Your task to perform on an android device: What is the news today? Image 0: 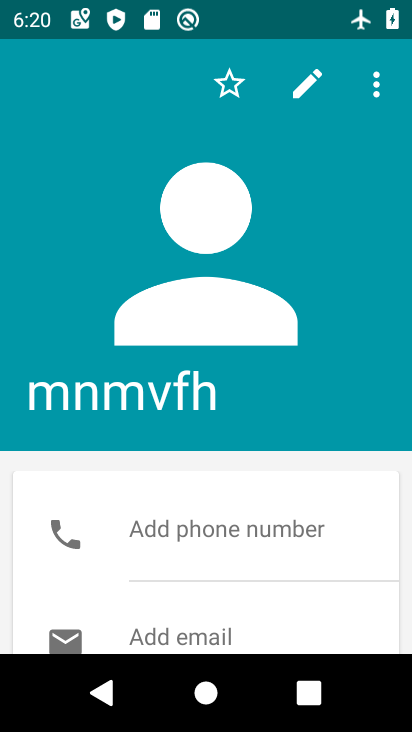
Step 0: drag from (287, 604) to (294, 351)
Your task to perform on an android device: What is the news today? Image 1: 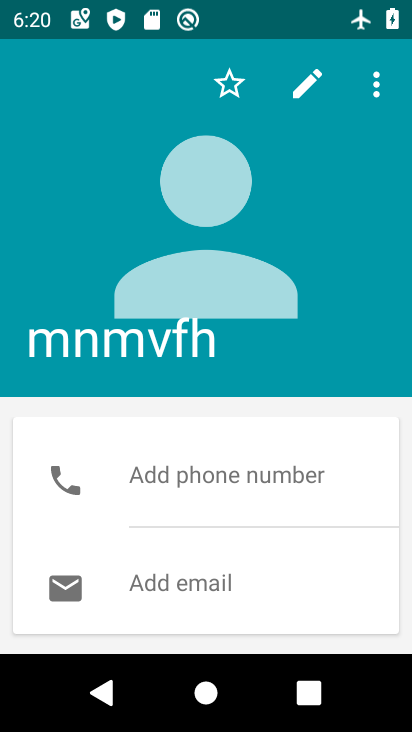
Step 1: press home button
Your task to perform on an android device: What is the news today? Image 2: 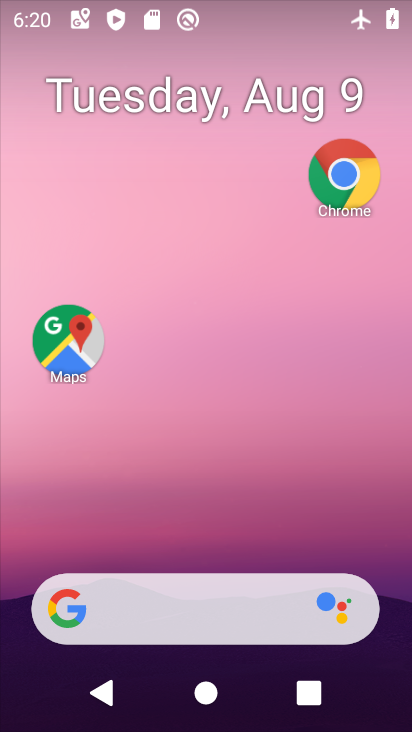
Step 2: drag from (182, 568) to (167, 116)
Your task to perform on an android device: What is the news today? Image 3: 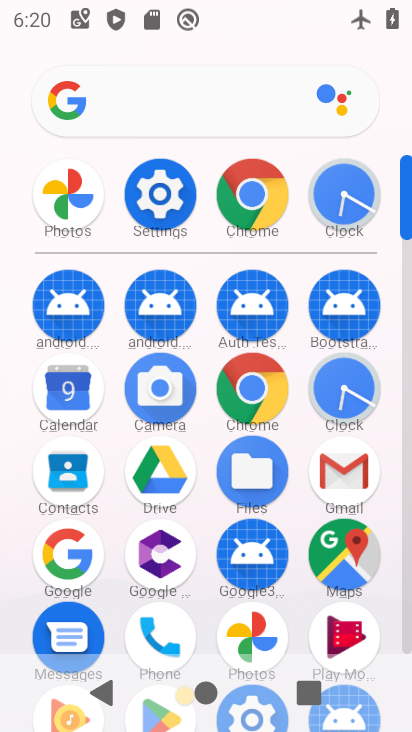
Step 3: click (69, 373)
Your task to perform on an android device: What is the news today? Image 4: 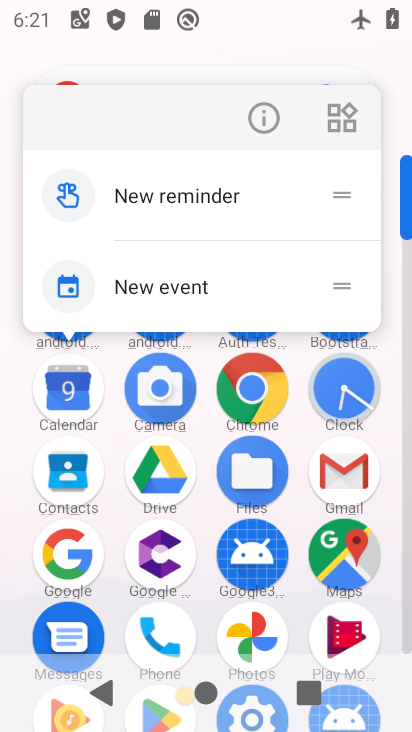
Step 4: click (399, 325)
Your task to perform on an android device: What is the news today? Image 5: 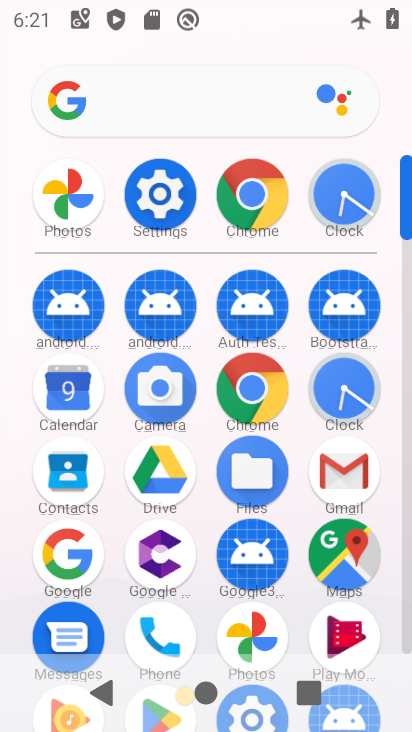
Step 5: click (171, 106)
Your task to perform on an android device: What is the news today? Image 6: 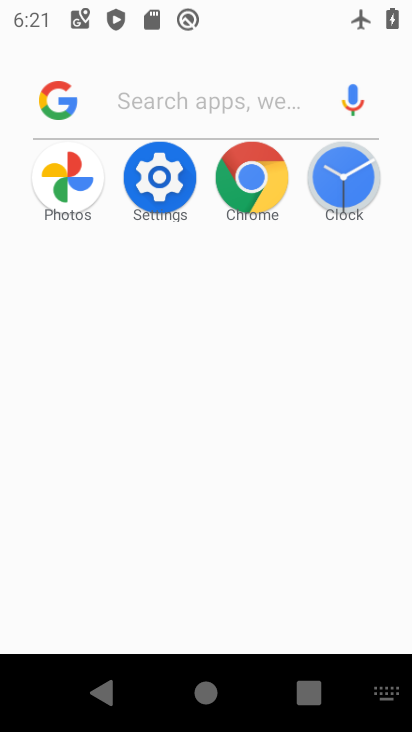
Step 6: click (201, 101)
Your task to perform on an android device: What is the news today? Image 7: 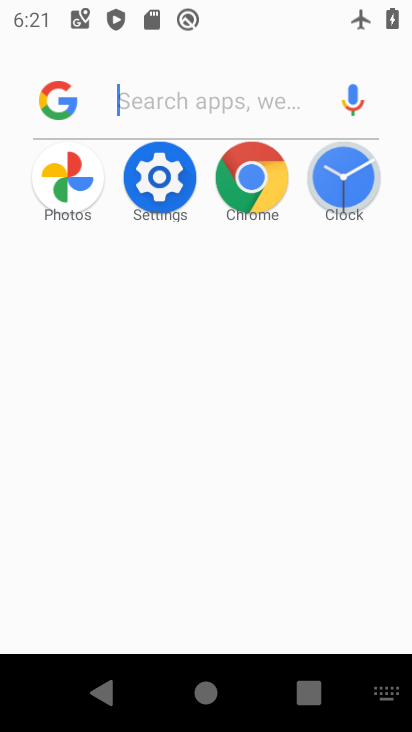
Step 7: click (201, 101)
Your task to perform on an android device: What is the news today? Image 8: 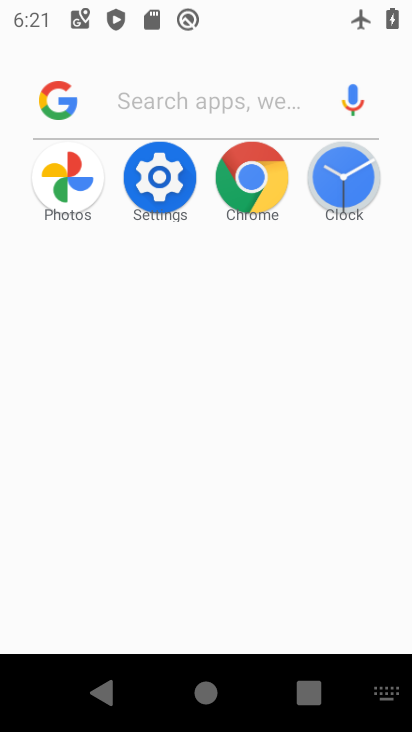
Step 8: type "news today?"
Your task to perform on an android device: What is the news today? Image 9: 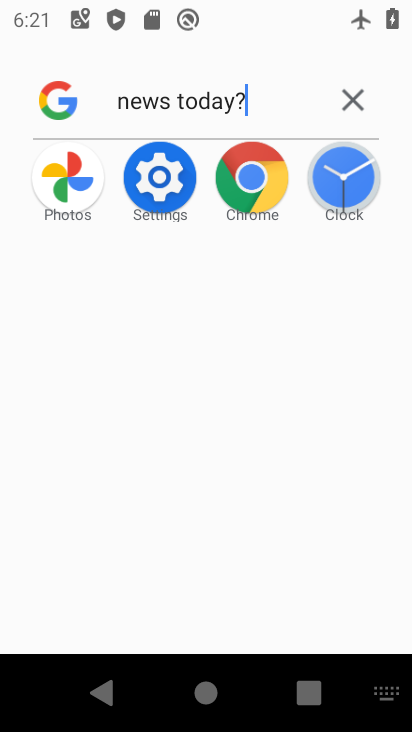
Step 9: type ""
Your task to perform on an android device: What is the news today? Image 10: 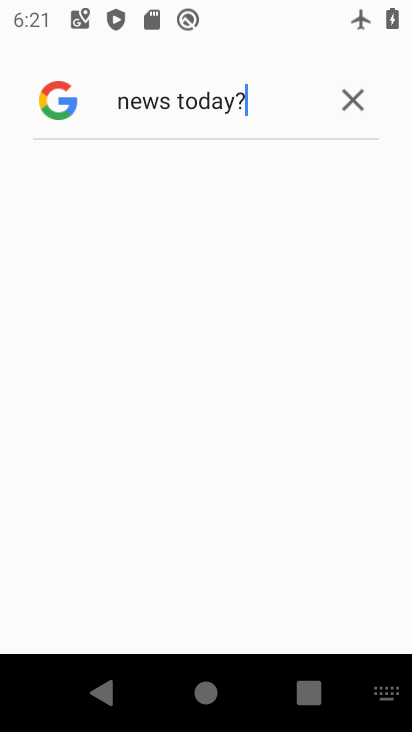
Step 10: click (235, 256)
Your task to perform on an android device: What is the news today? Image 11: 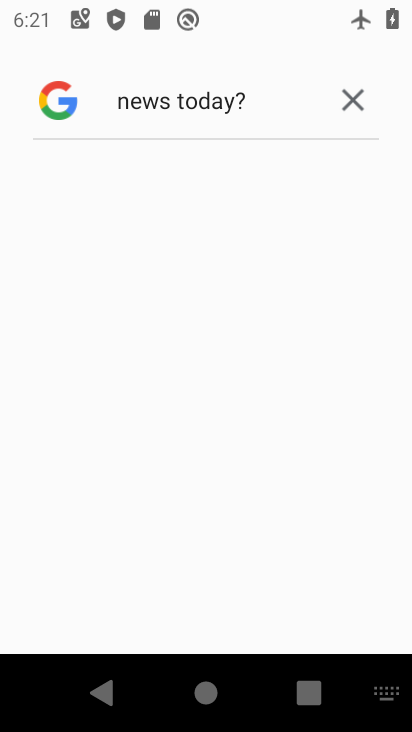
Step 11: drag from (200, 451) to (219, 356)
Your task to perform on an android device: What is the news today? Image 12: 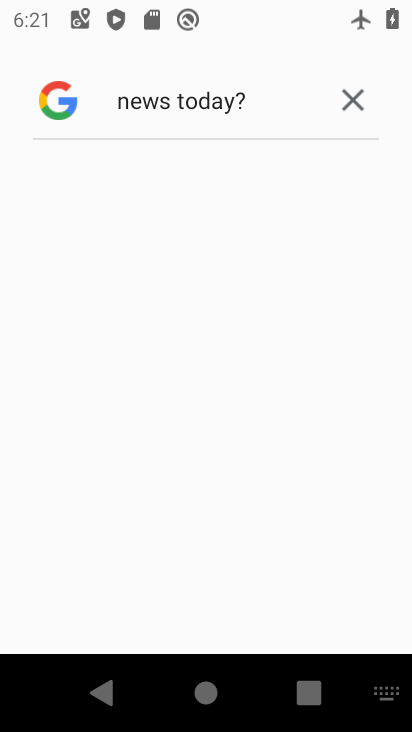
Step 12: click (224, 267)
Your task to perform on an android device: What is the news today? Image 13: 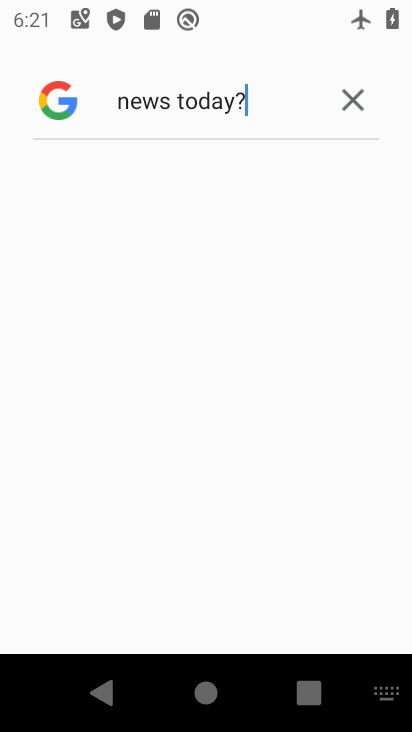
Step 13: task complete